Your task to perform on an android device: Open Maps and search for coffee Image 0: 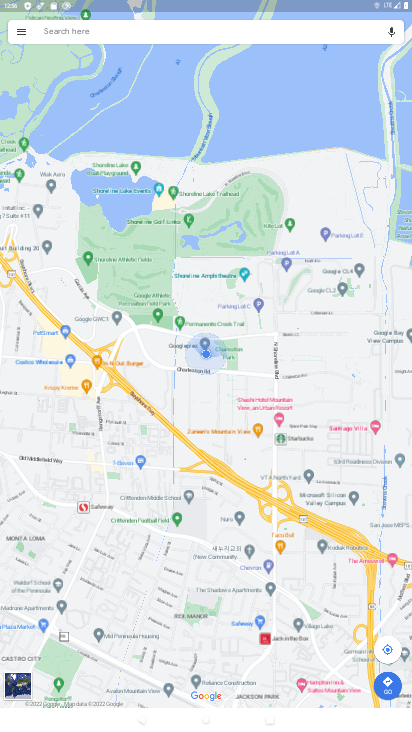
Step 0: click (79, 27)
Your task to perform on an android device: Open Maps and search for coffee Image 1: 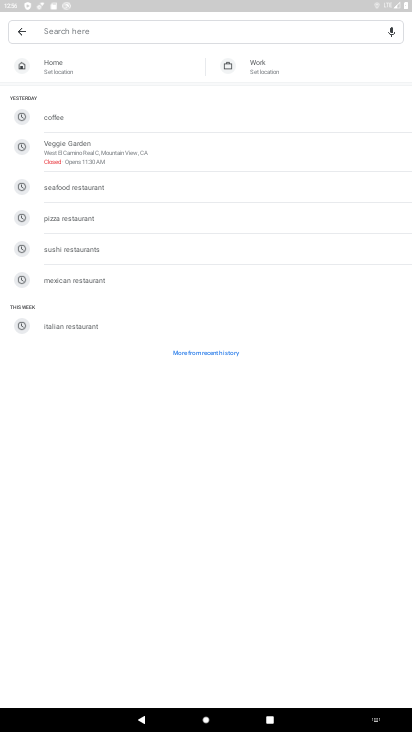
Step 1: click (45, 125)
Your task to perform on an android device: Open Maps and search for coffee Image 2: 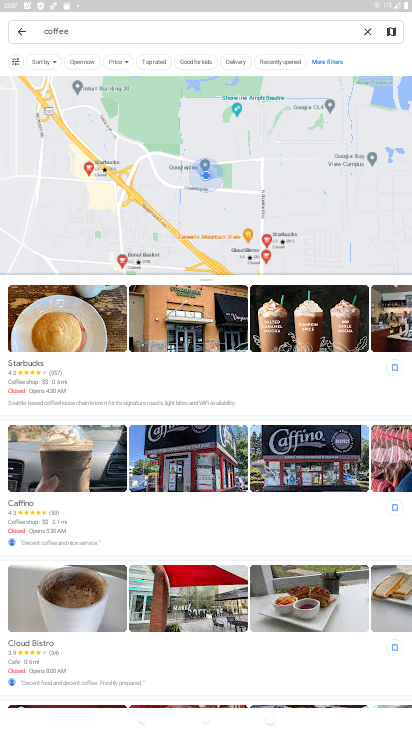
Step 2: task complete